Your task to perform on an android device: Open ESPN.com Image 0: 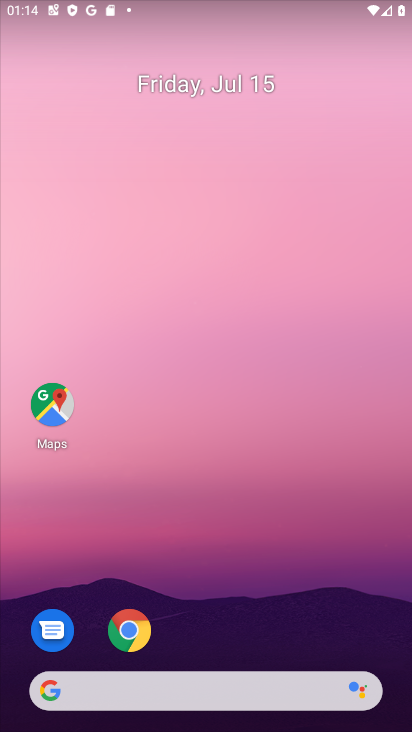
Step 0: click (272, 707)
Your task to perform on an android device: Open ESPN.com Image 1: 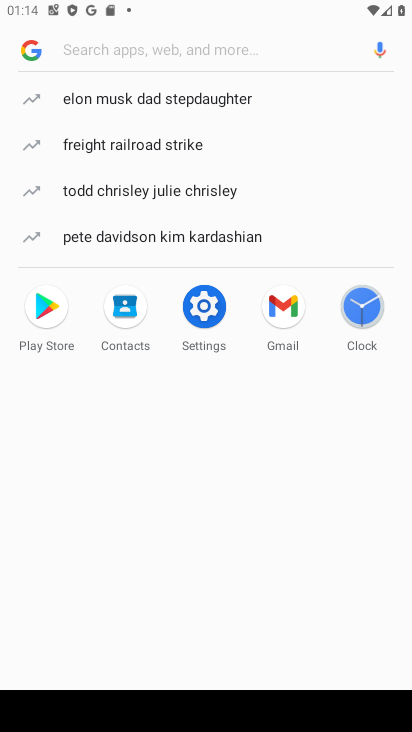
Step 1: type "espn"
Your task to perform on an android device: Open ESPN.com Image 2: 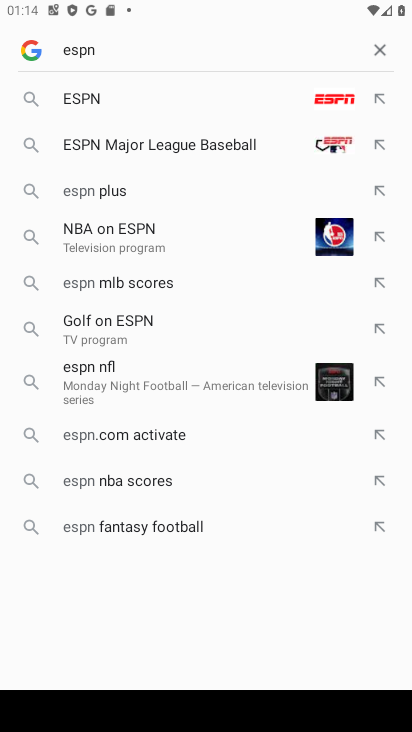
Step 2: click (162, 98)
Your task to perform on an android device: Open ESPN.com Image 3: 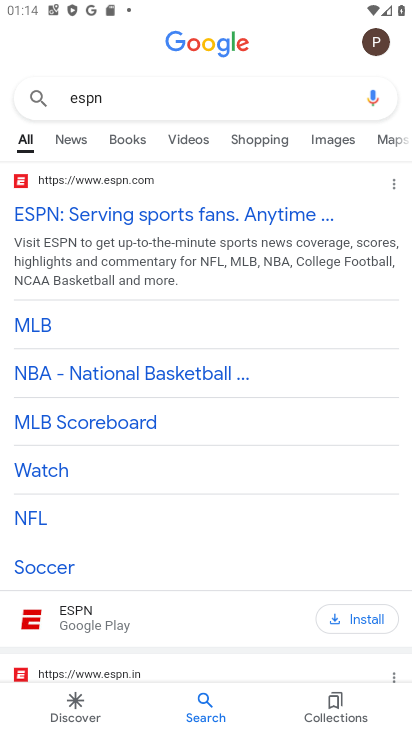
Step 3: task complete